Your task to perform on an android device: What's on my calendar today? Image 0: 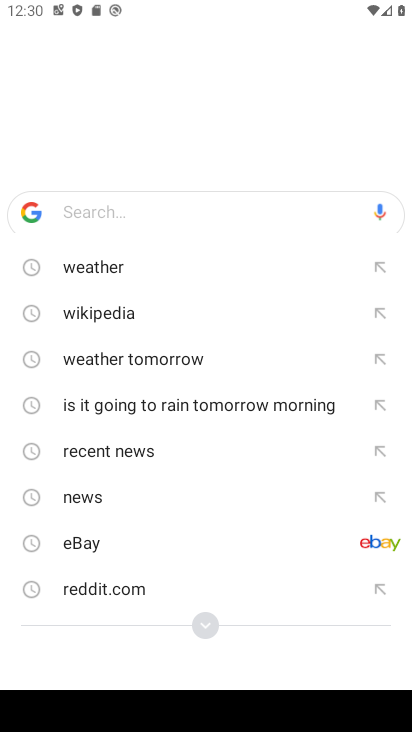
Step 0: press home button
Your task to perform on an android device: What's on my calendar today? Image 1: 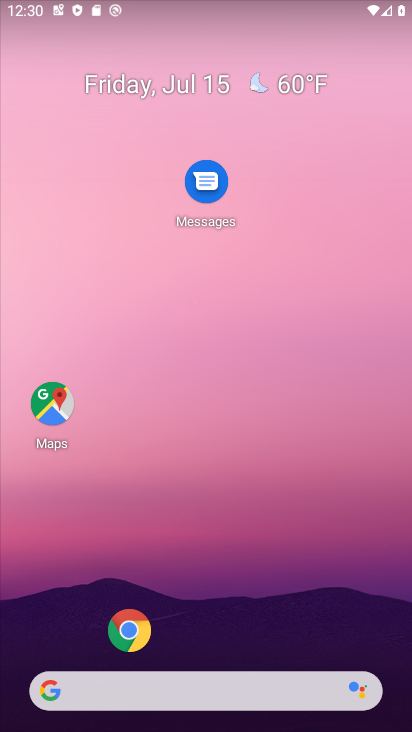
Step 1: drag from (27, 642) to (188, 160)
Your task to perform on an android device: What's on my calendar today? Image 2: 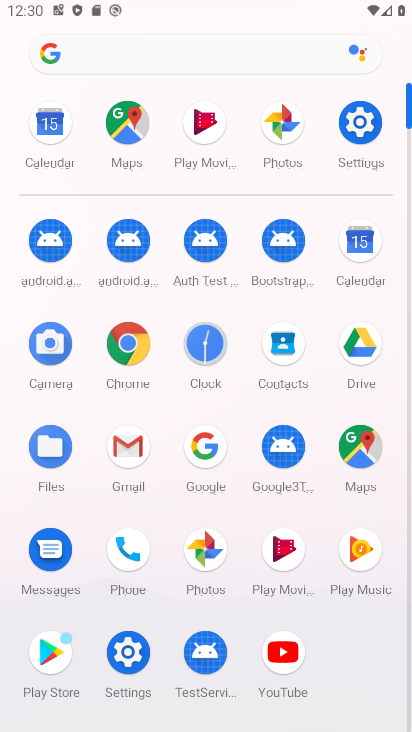
Step 2: click (365, 237)
Your task to perform on an android device: What's on my calendar today? Image 3: 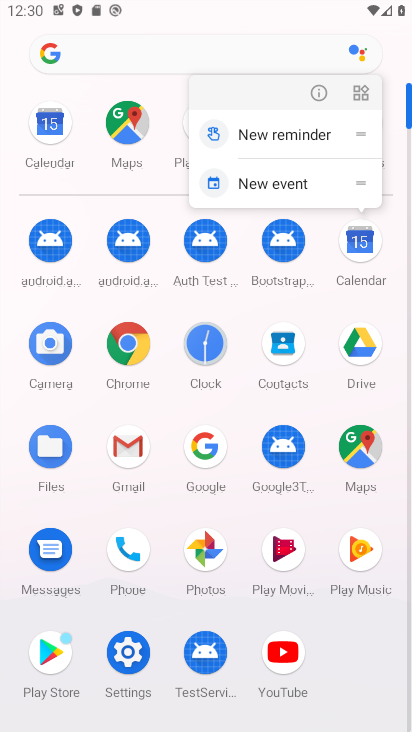
Step 3: click (353, 264)
Your task to perform on an android device: What's on my calendar today? Image 4: 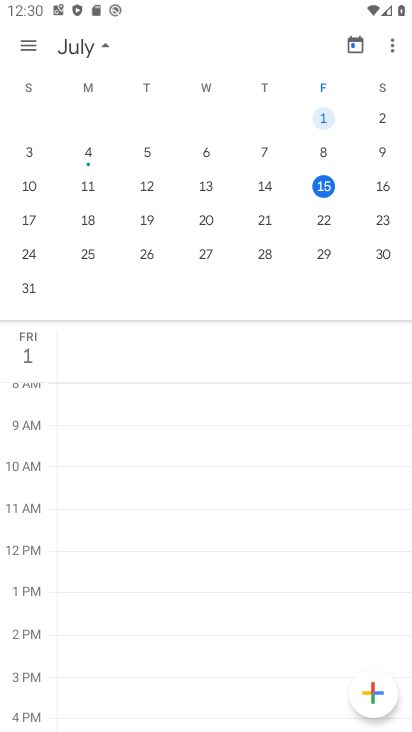
Step 4: task complete